Your task to perform on an android device: turn on the 12-hour format for clock Image 0: 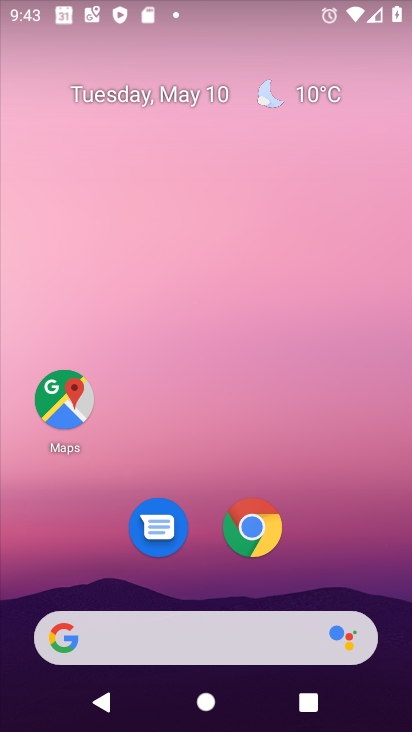
Step 0: drag from (235, 581) to (235, 162)
Your task to perform on an android device: turn on the 12-hour format for clock Image 1: 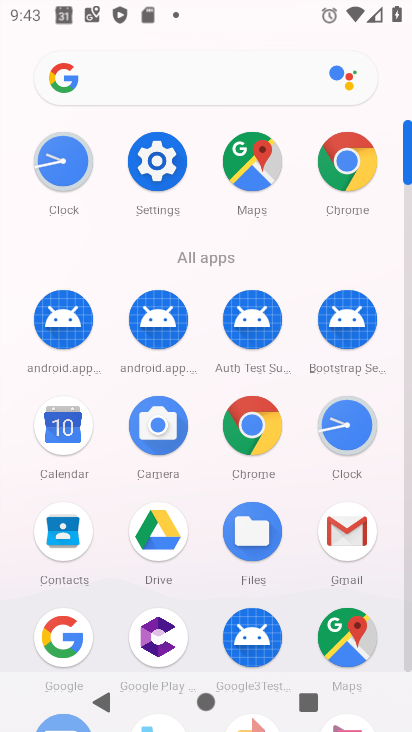
Step 1: click (351, 430)
Your task to perform on an android device: turn on the 12-hour format for clock Image 2: 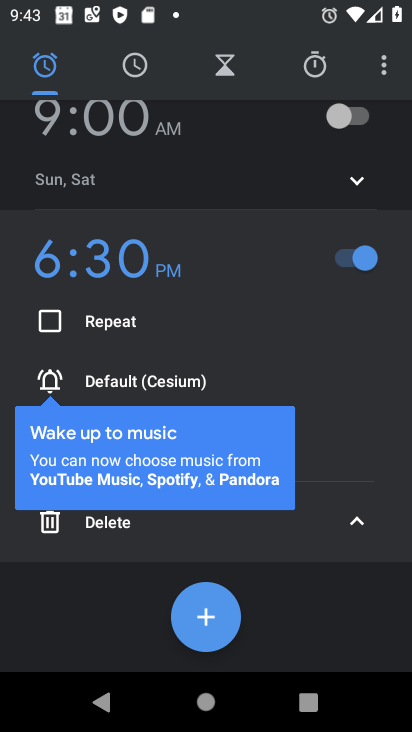
Step 2: click (387, 59)
Your task to perform on an android device: turn on the 12-hour format for clock Image 3: 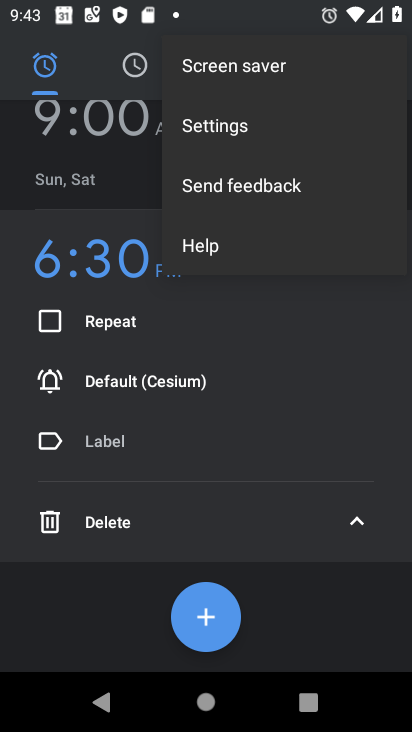
Step 3: click (222, 126)
Your task to perform on an android device: turn on the 12-hour format for clock Image 4: 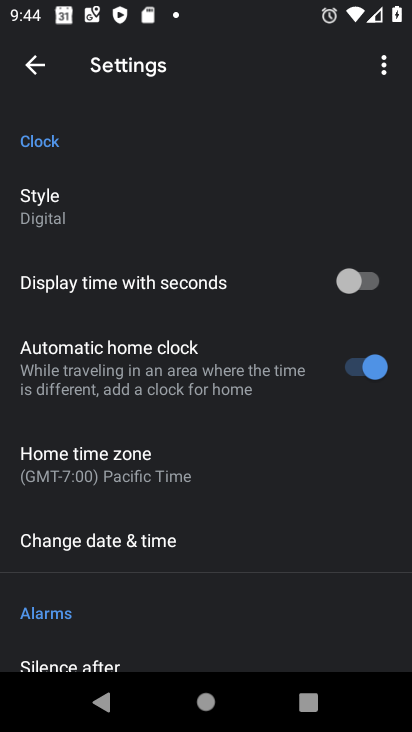
Step 4: click (124, 534)
Your task to perform on an android device: turn on the 12-hour format for clock Image 5: 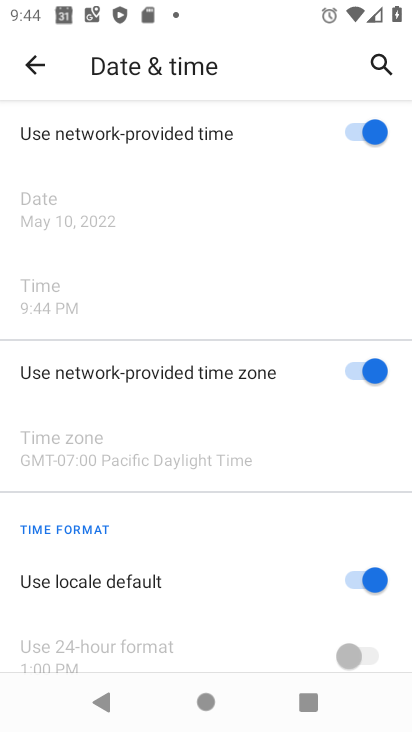
Step 5: task complete